Your task to perform on an android device: Check the news Image 0: 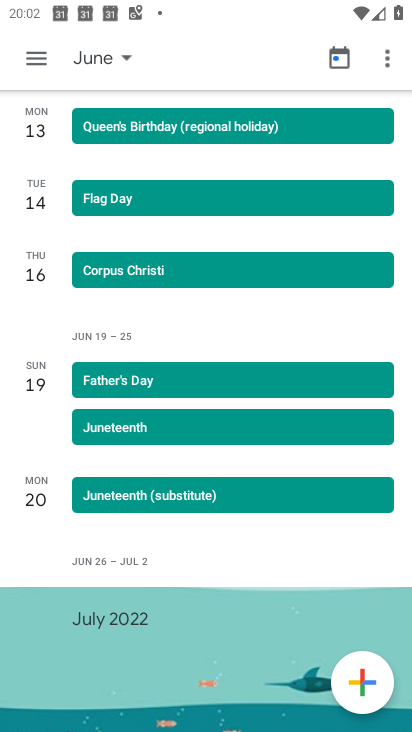
Step 0: press home button
Your task to perform on an android device: Check the news Image 1: 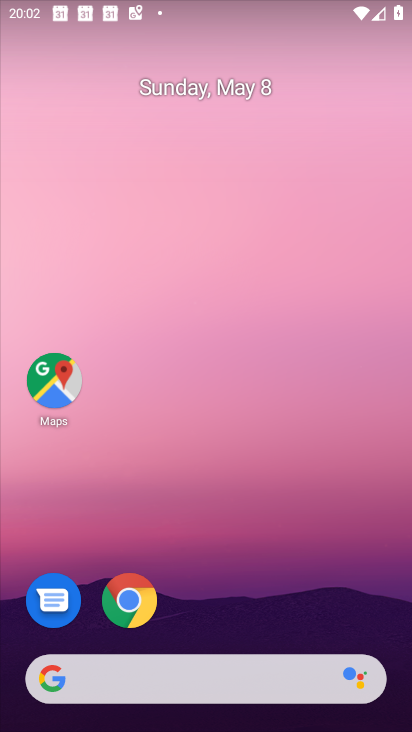
Step 1: drag from (292, 664) to (408, 126)
Your task to perform on an android device: Check the news Image 2: 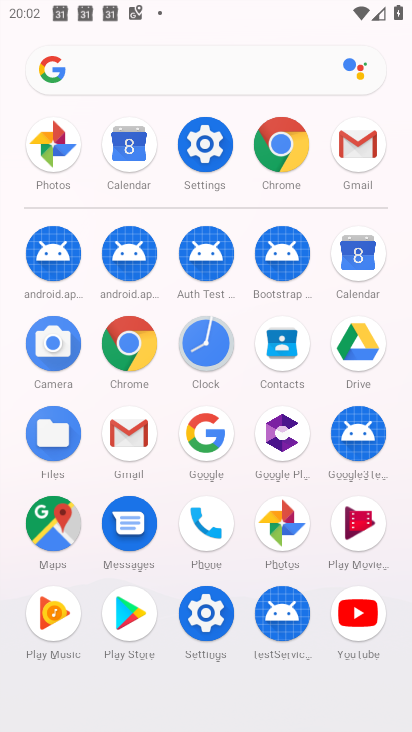
Step 2: click (182, 69)
Your task to perform on an android device: Check the news Image 3: 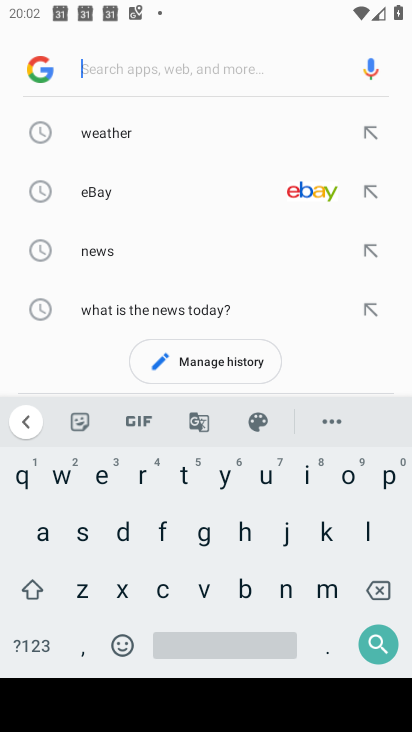
Step 3: click (106, 258)
Your task to perform on an android device: Check the news Image 4: 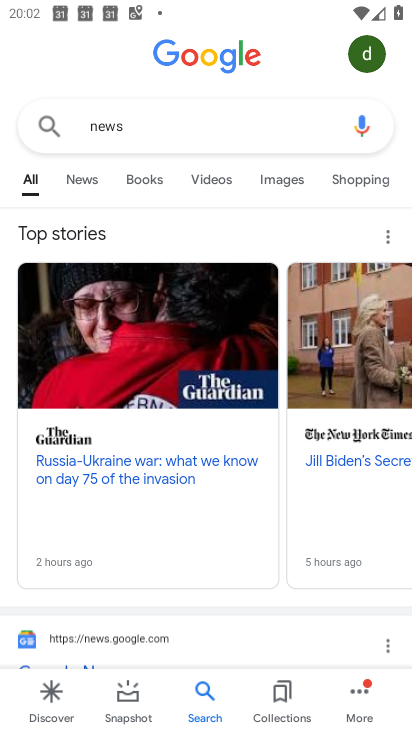
Step 4: task complete